Your task to perform on an android device: Open Google Maps and go to "Timeline" Image 0: 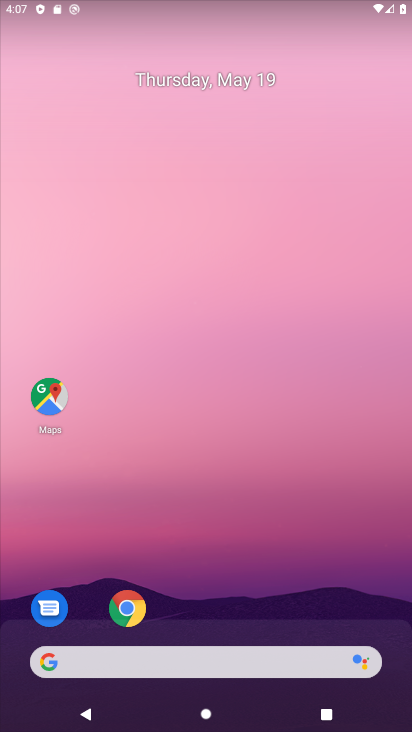
Step 0: drag from (268, 605) to (272, 175)
Your task to perform on an android device: Open Google Maps and go to "Timeline" Image 1: 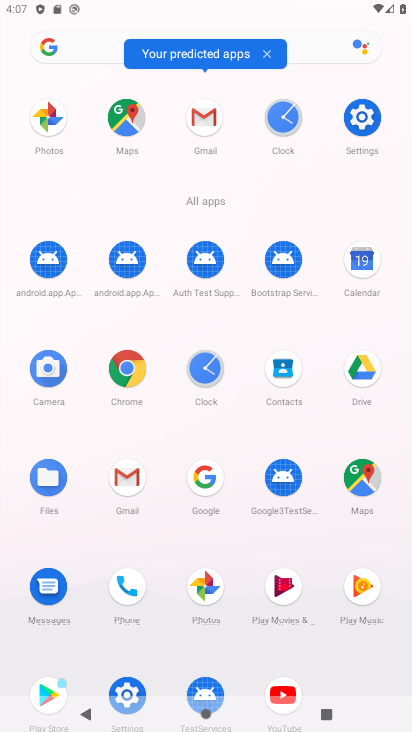
Step 1: click (362, 480)
Your task to perform on an android device: Open Google Maps and go to "Timeline" Image 2: 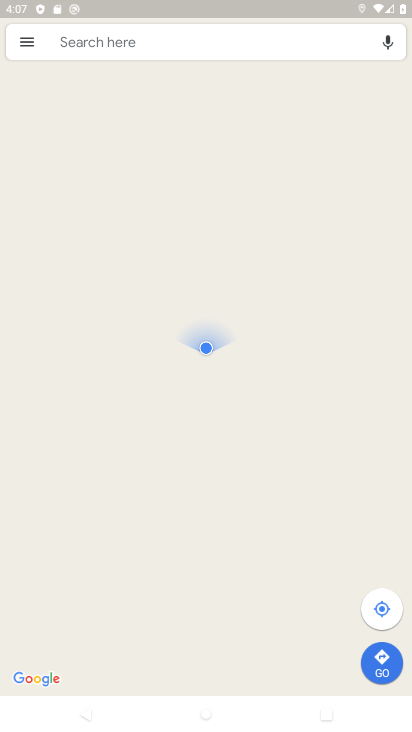
Step 2: click (28, 33)
Your task to perform on an android device: Open Google Maps and go to "Timeline" Image 3: 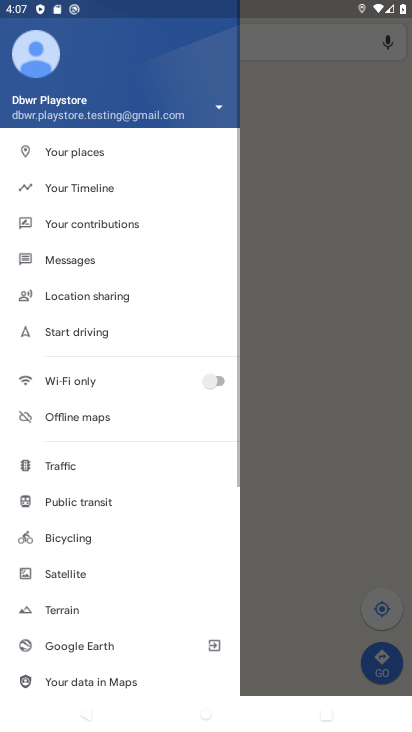
Step 3: click (81, 188)
Your task to perform on an android device: Open Google Maps and go to "Timeline" Image 4: 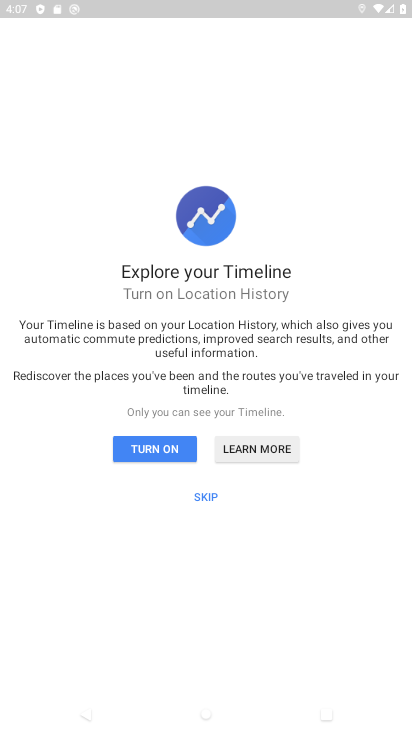
Step 4: click (141, 453)
Your task to perform on an android device: Open Google Maps and go to "Timeline" Image 5: 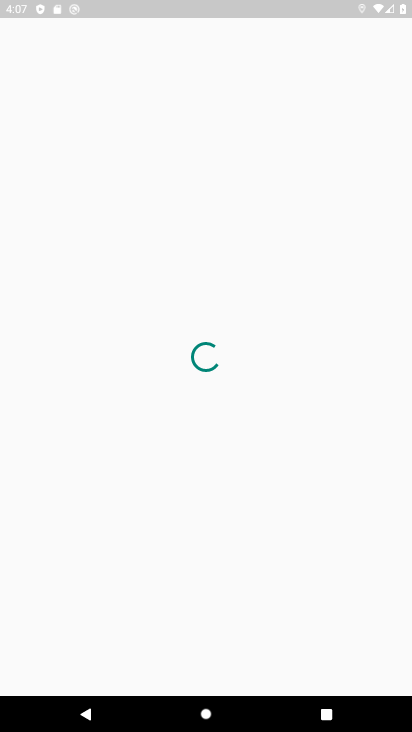
Step 5: task complete